Your task to perform on an android device: see sites visited before in the chrome app Image 0: 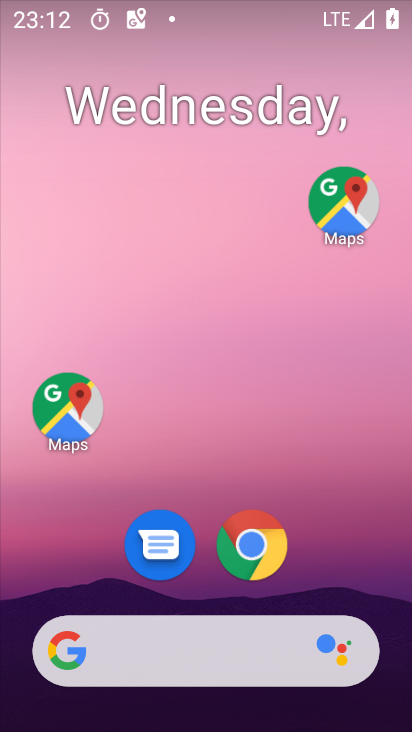
Step 0: click (238, 555)
Your task to perform on an android device: see sites visited before in the chrome app Image 1: 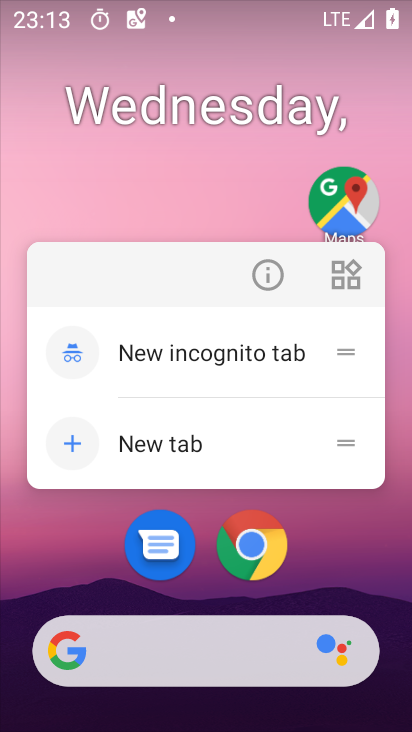
Step 1: click (251, 541)
Your task to perform on an android device: see sites visited before in the chrome app Image 2: 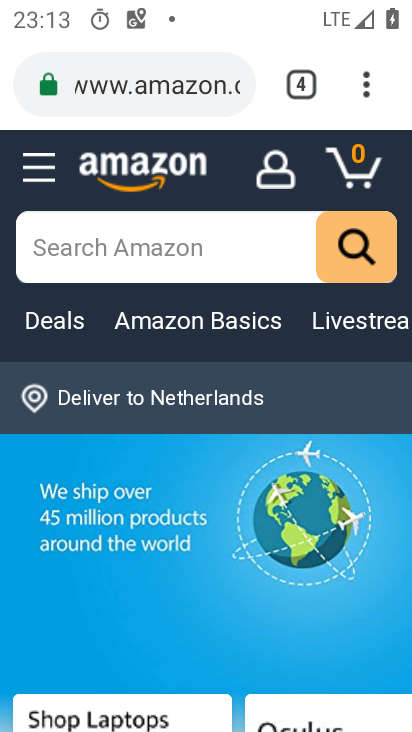
Step 2: click (365, 87)
Your task to perform on an android device: see sites visited before in the chrome app Image 3: 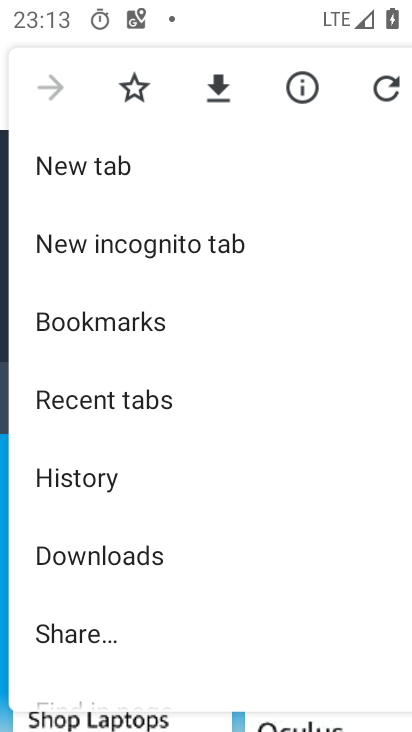
Step 3: click (66, 486)
Your task to perform on an android device: see sites visited before in the chrome app Image 4: 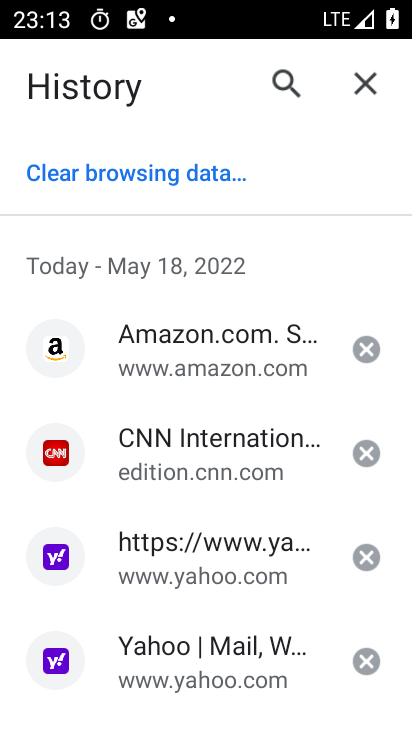
Step 4: task complete